Your task to perform on an android device: Open Google Chrome and open the bookmarks view Image 0: 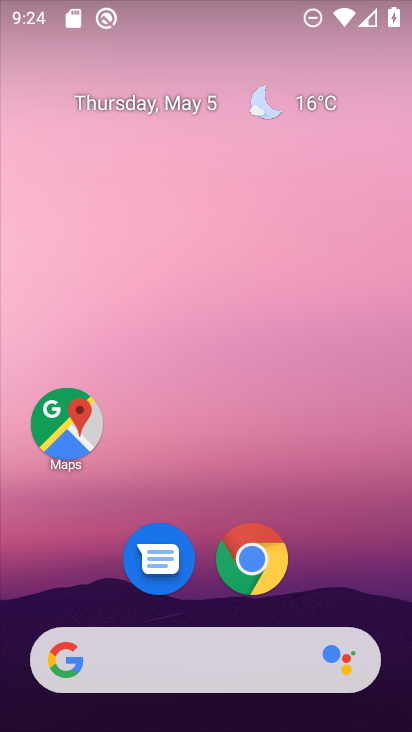
Step 0: click (260, 571)
Your task to perform on an android device: Open Google Chrome and open the bookmarks view Image 1: 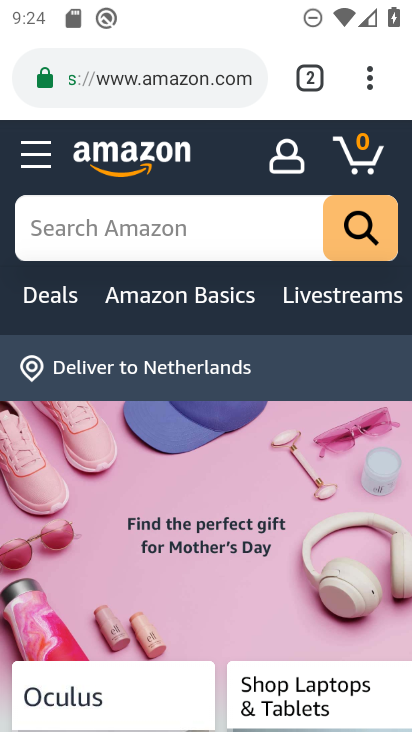
Step 1: task complete